Your task to perform on an android device: add a contact in the contacts app Image 0: 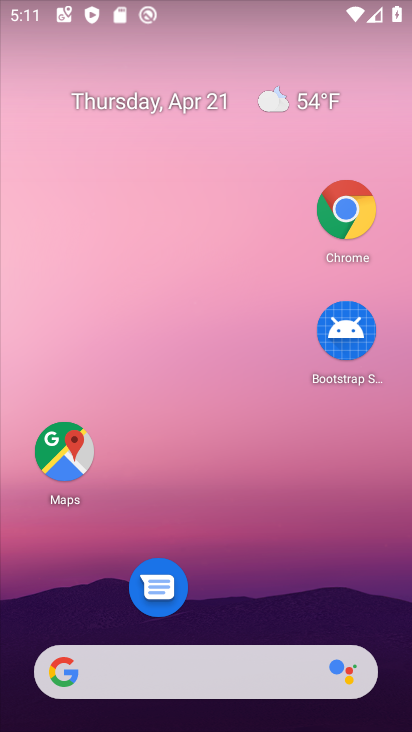
Step 0: drag from (258, 578) to (303, 118)
Your task to perform on an android device: add a contact in the contacts app Image 1: 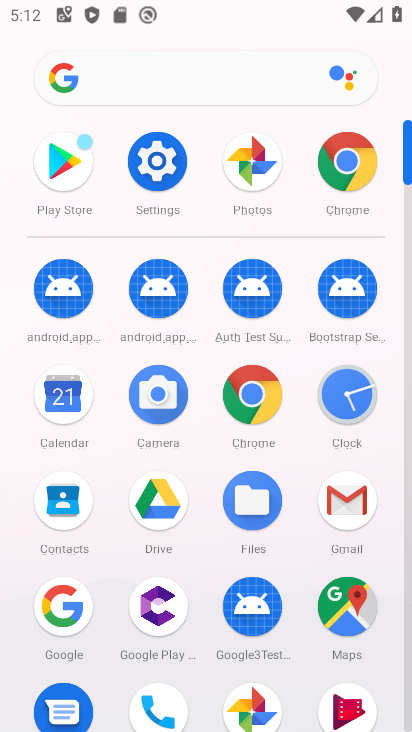
Step 1: click (59, 493)
Your task to perform on an android device: add a contact in the contacts app Image 2: 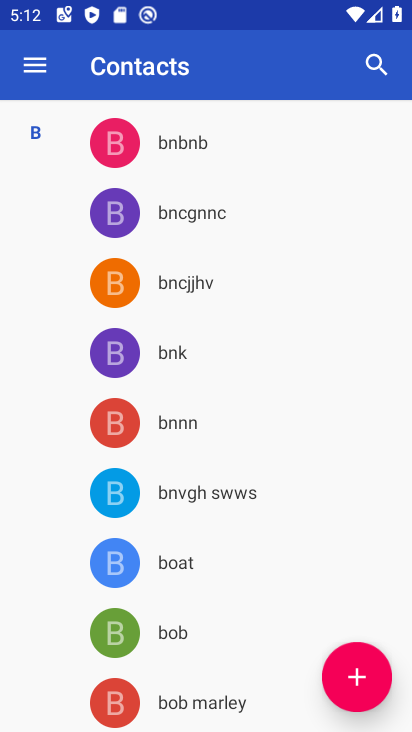
Step 2: click (363, 679)
Your task to perform on an android device: add a contact in the contacts app Image 3: 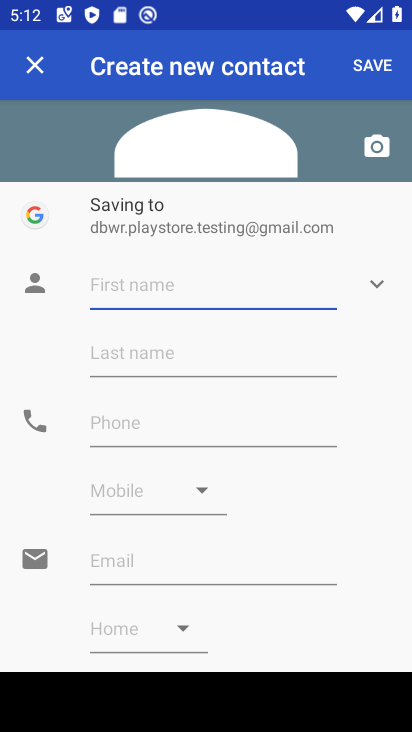
Step 3: type "shona"
Your task to perform on an android device: add a contact in the contacts app Image 4: 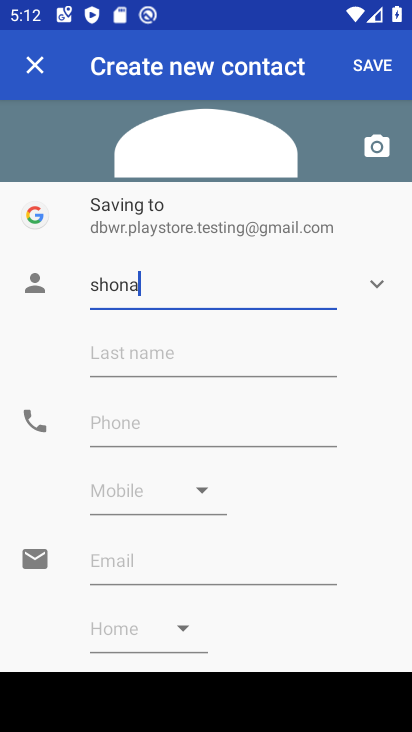
Step 4: click (187, 427)
Your task to perform on an android device: add a contact in the contacts app Image 5: 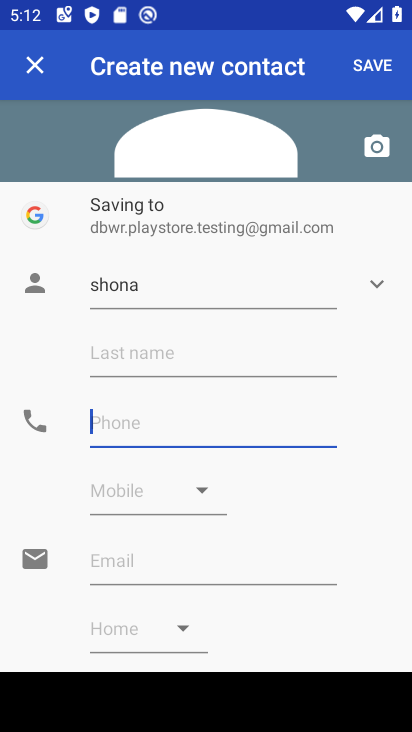
Step 5: type "04589"
Your task to perform on an android device: add a contact in the contacts app Image 6: 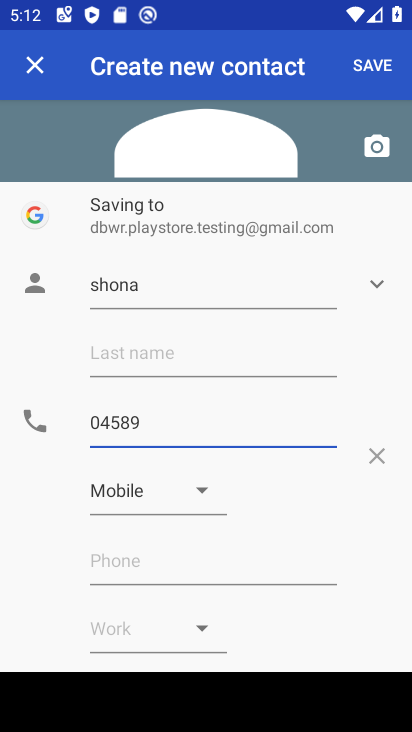
Step 6: click (365, 64)
Your task to perform on an android device: add a contact in the contacts app Image 7: 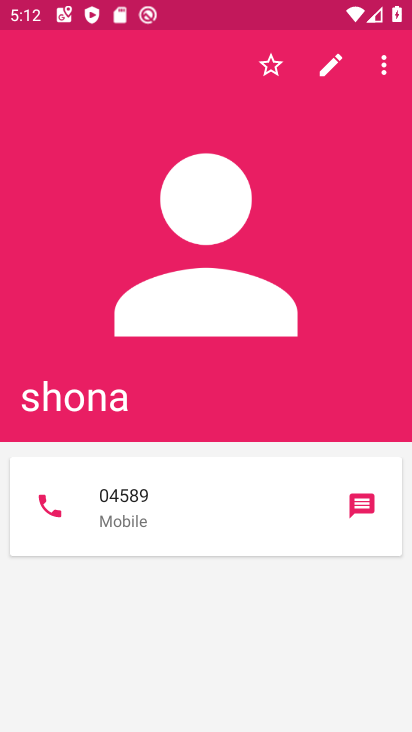
Step 7: task complete